Your task to perform on an android device: turn notification dots off Image 0: 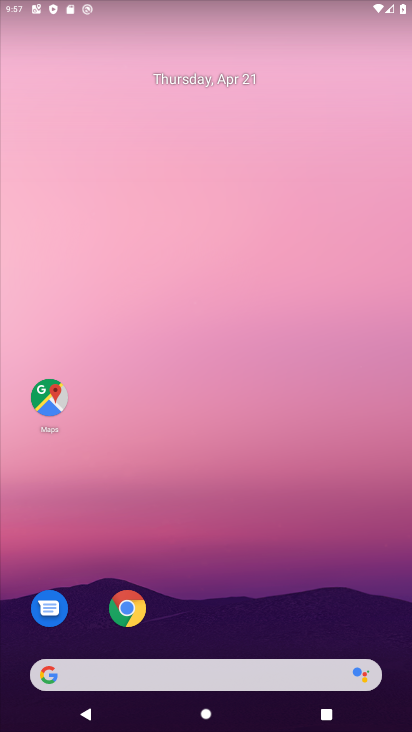
Step 0: drag from (225, 597) to (291, 137)
Your task to perform on an android device: turn notification dots off Image 1: 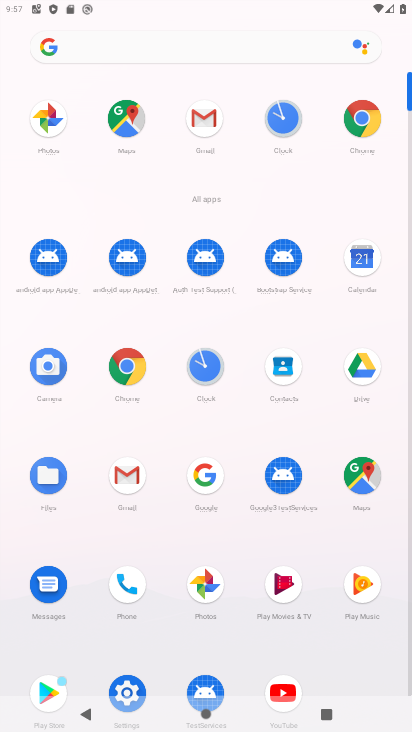
Step 1: click (124, 689)
Your task to perform on an android device: turn notification dots off Image 2: 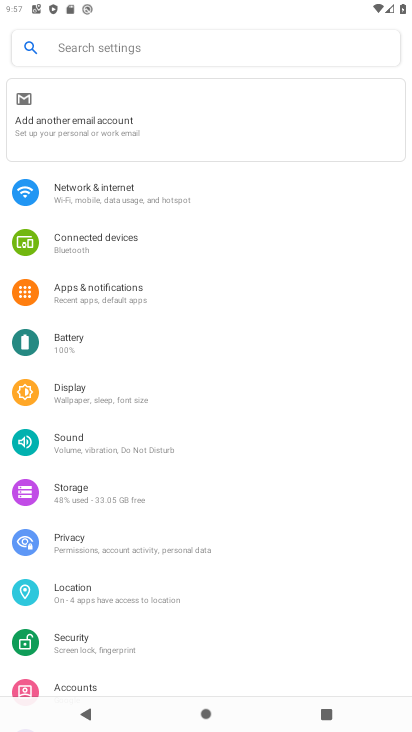
Step 2: click (154, 289)
Your task to perform on an android device: turn notification dots off Image 3: 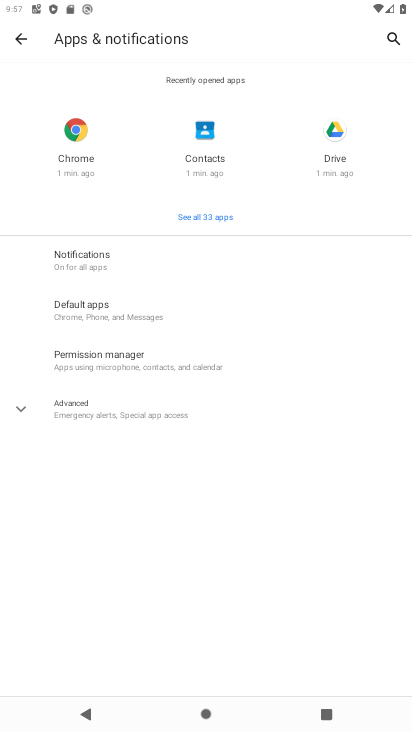
Step 3: click (143, 262)
Your task to perform on an android device: turn notification dots off Image 4: 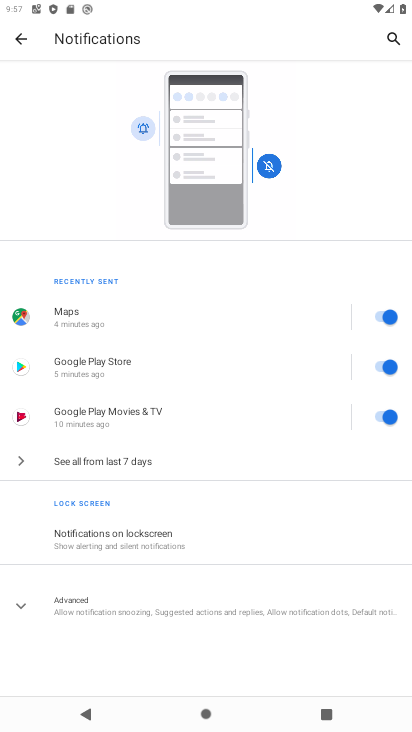
Step 4: click (17, 607)
Your task to perform on an android device: turn notification dots off Image 5: 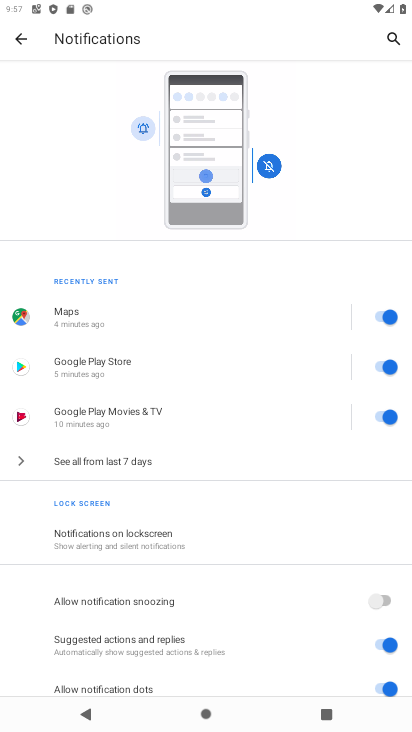
Step 5: drag from (230, 615) to (262, 337)
Your task to perform on an android device: turn notification dots off Image 6: 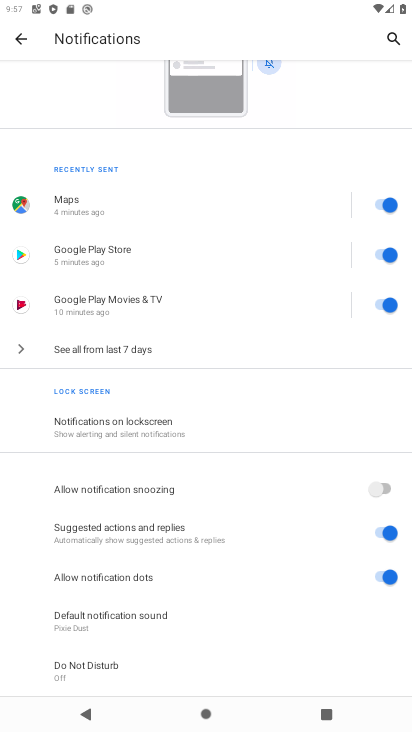
Step 6: click (386, 572)
Your task to perform on an android device: turn notification dots off Image 7: 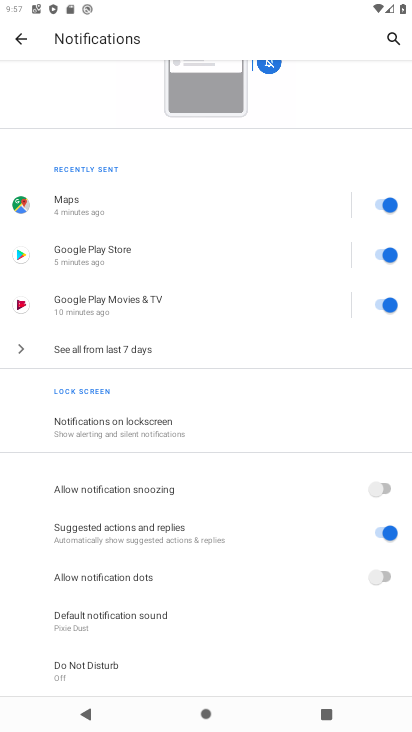
Step 7: task complete